Your task to perform on an android device: Add bose soundlink to the cart on newegg Image 0: 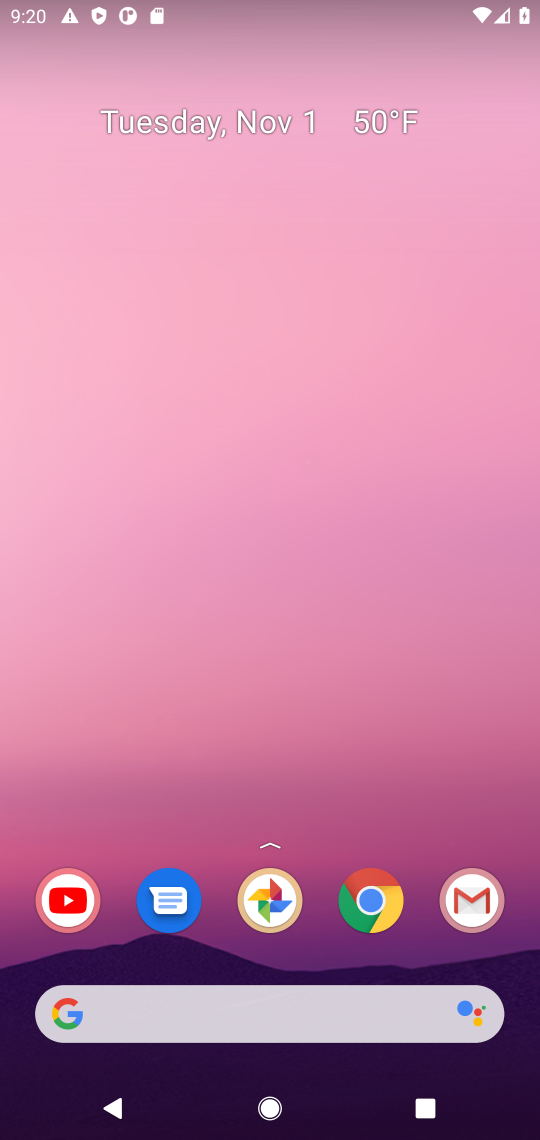
Step 0: click (348, 894)
Your task to perform on an android device: Add bose soundlink to the cart on newegg Image 1: 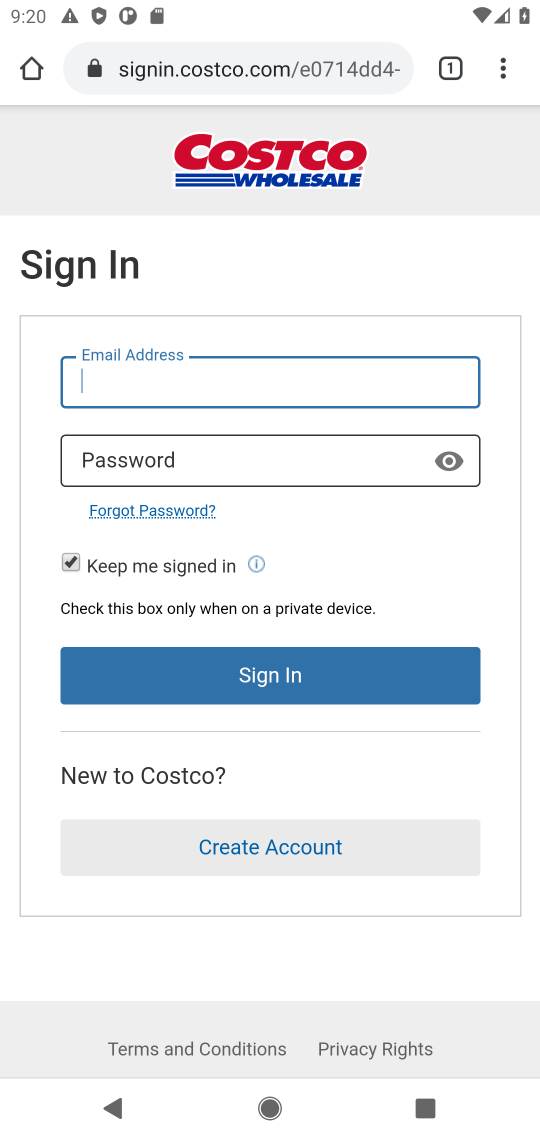
Step 1: click (347, 79)
Your task to perform on an android device: Add bose soundlink to the cart on newegg Image 2: 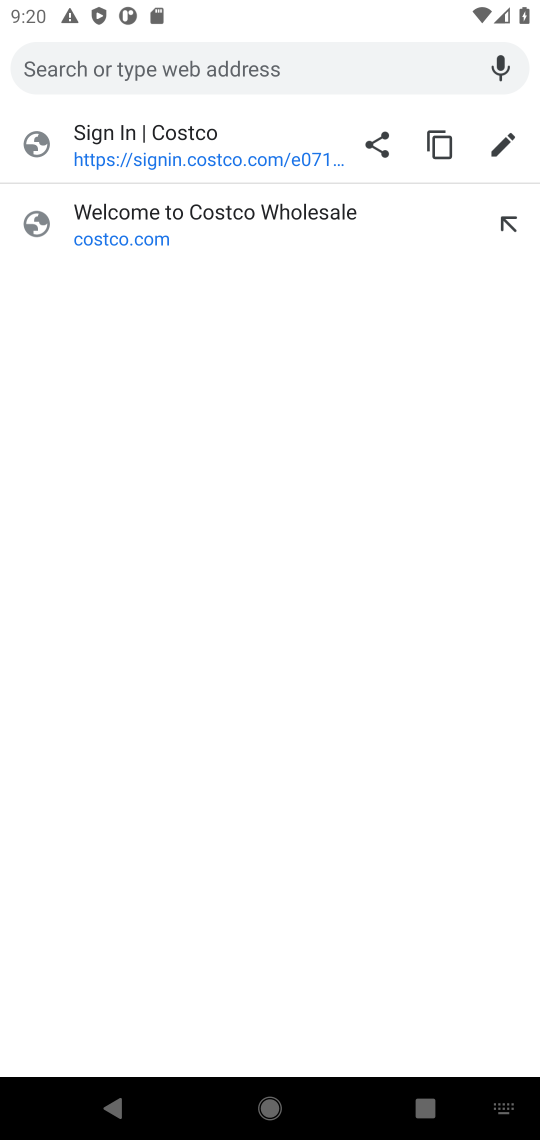
Step 2: type "newegg"
Your task to perform on an android device: Add bose soundlink to the cart on newegg Image 3: 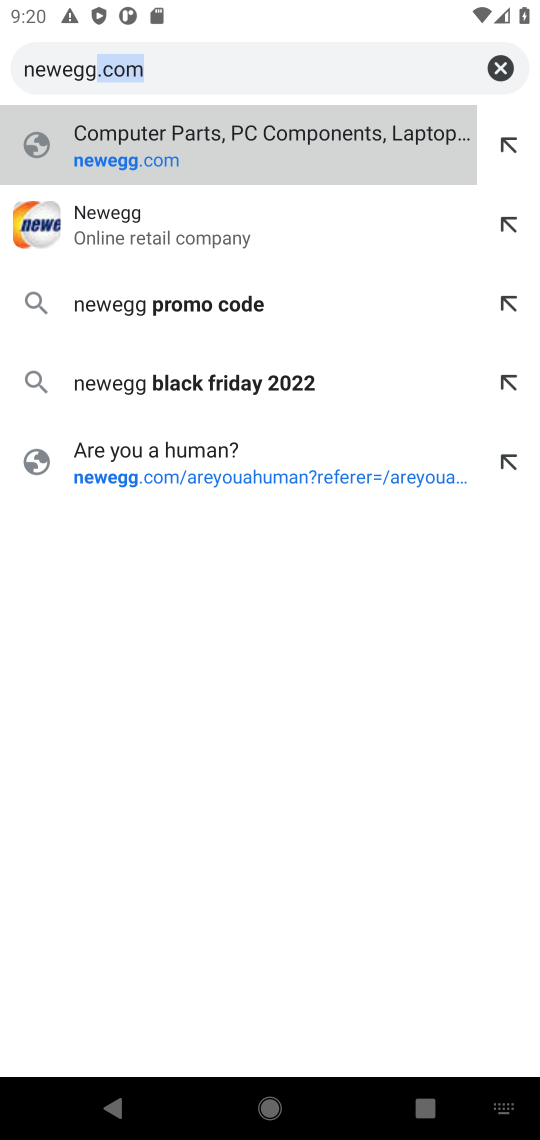
Step 3: click (140, 225)
Your task to perform on an android device: Add bose soundlink to the cart on newegg Image 4: 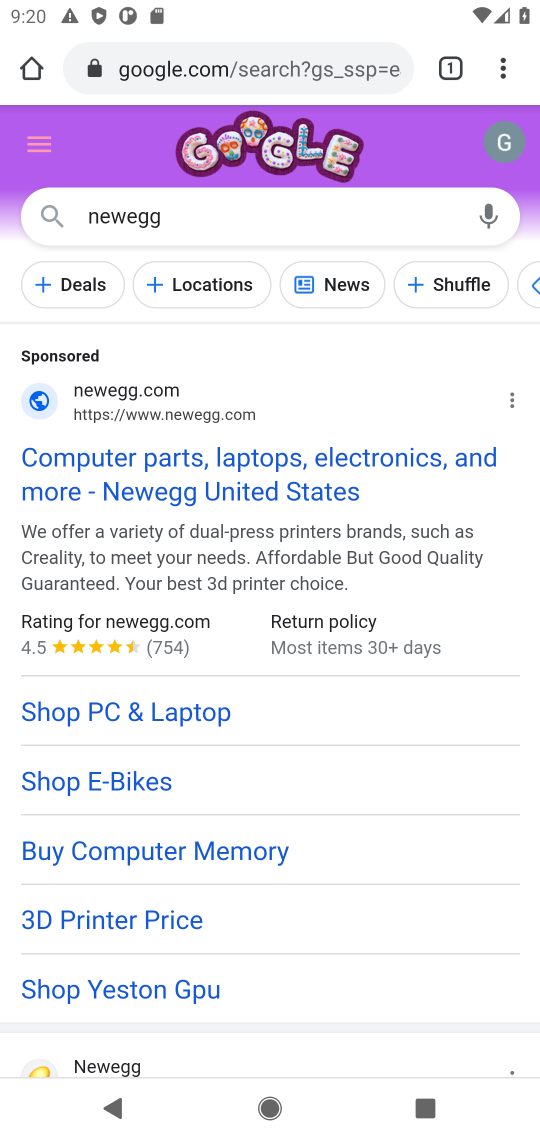
Step 4: click (115, 443)
Your task to perform on an android device: Add bose soundlink to the cart on newegg Image 5: 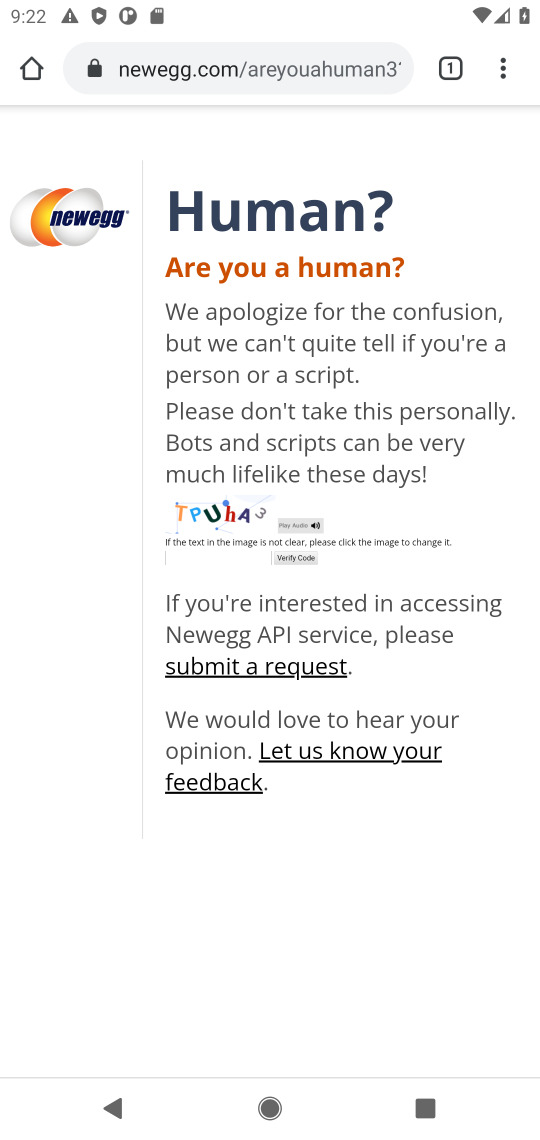
Step 5: task complete